Your task to perform on an android device: Search for the best rated phone case for the iPhone 8. Image 0: 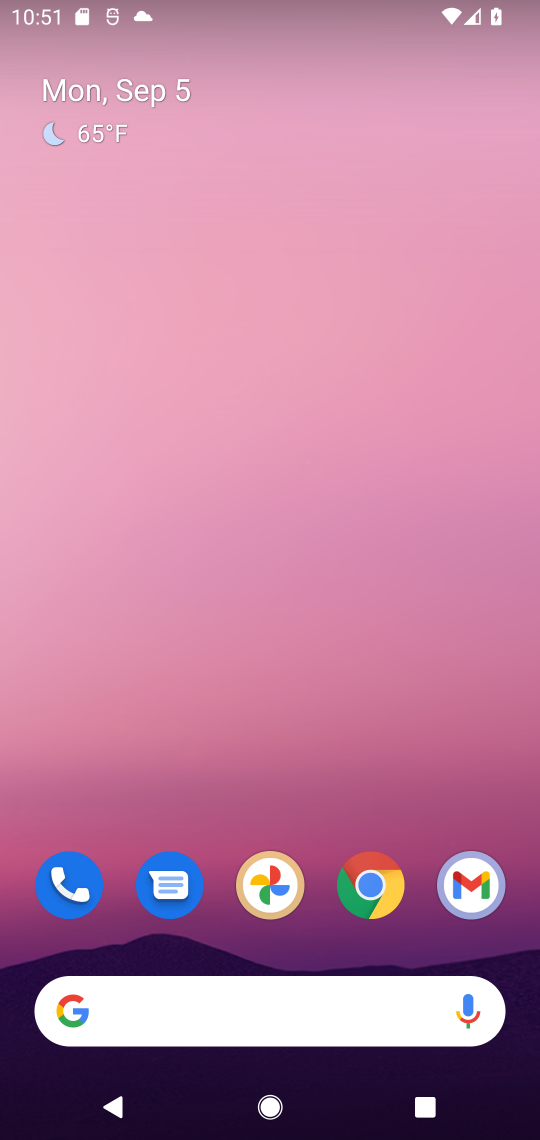
Step 0: drag from (353, 920) to (360, 224)
Your task to perform on an android device: Search for the best rated phone case for the iPhone 8. Image 1: 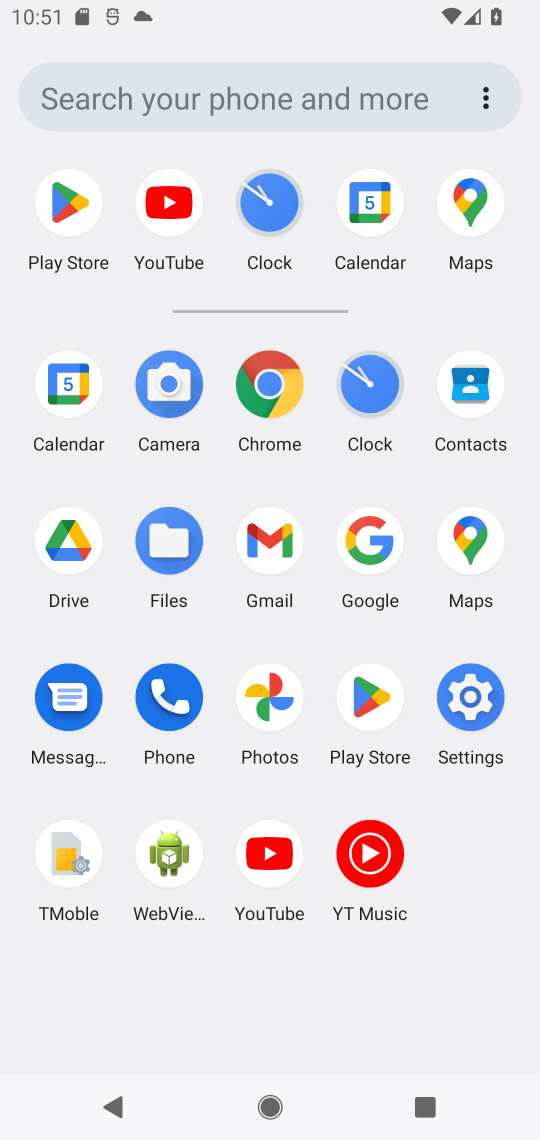
Step 1: click (370, 533)
Your task to perform on an android device: Search for the best rated phone case for the iPhone 8. Image 2: 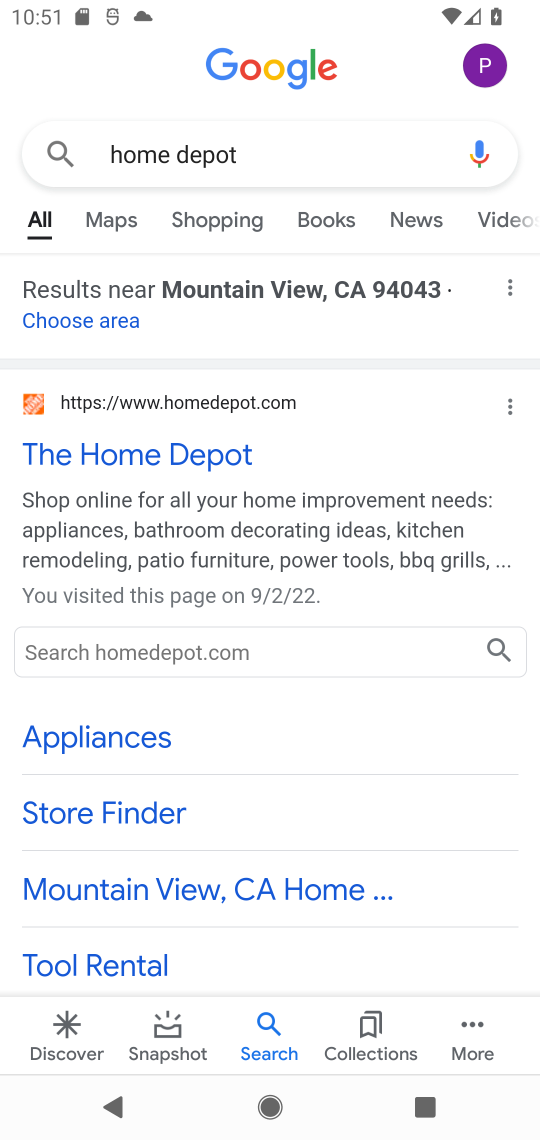
Step 2: click (315, 160)
Your task to perform on an android device: Search for the best rated phone case for the iPhone 8. Image 3: 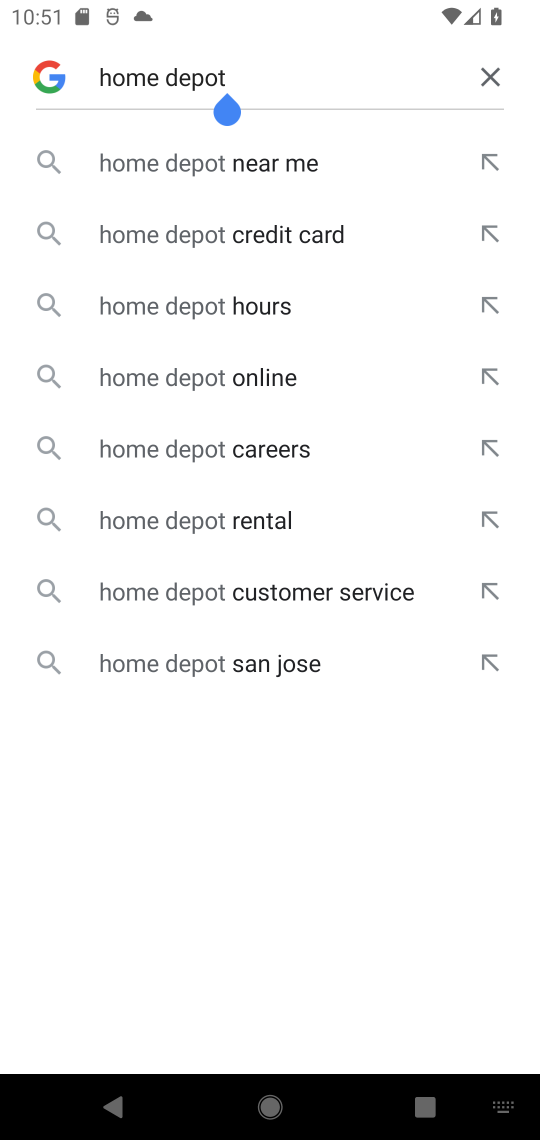
Step 3: click (490, 70)
Your task to perform on an android device: Search for the best rated phone case for the iPhone 8. Image 4: 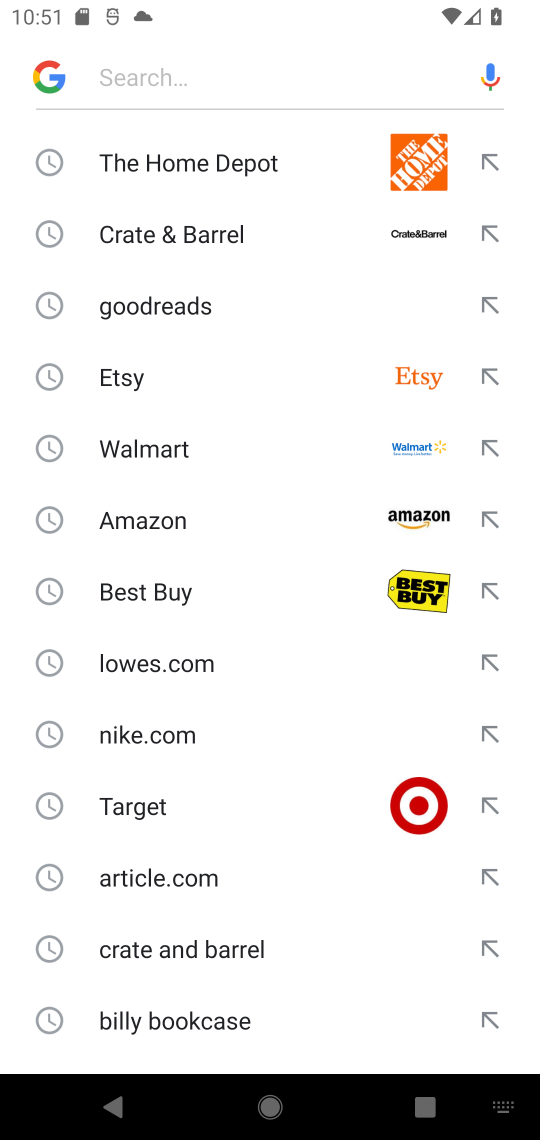
Step 4: type "phone case for the iPhone 8"
Your task to perform on an android device: Search for the best rated phone case for the iPhone 8. Image 5: 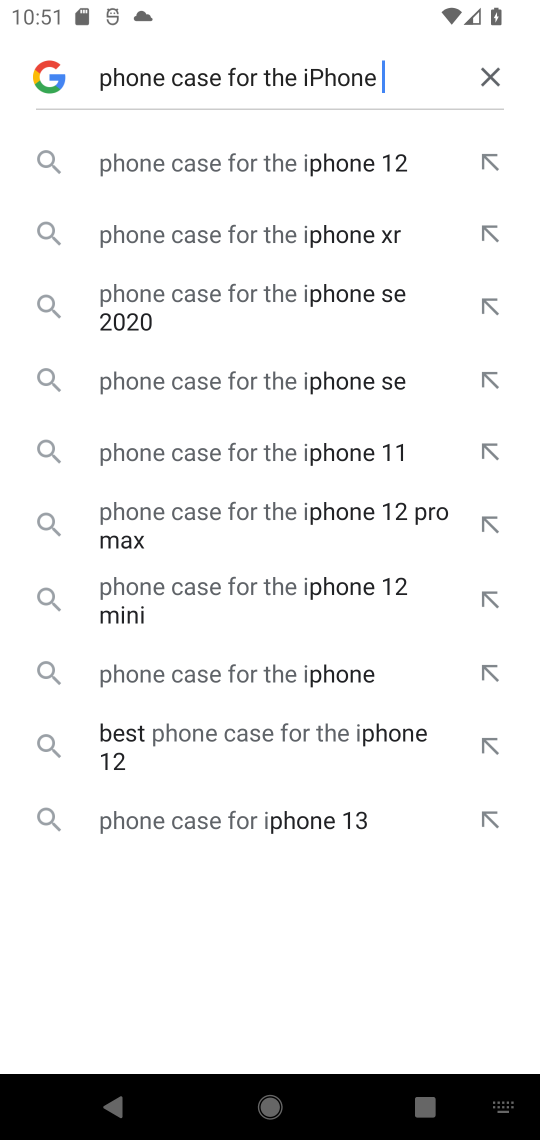
Step 5: type ""
Your task to perform on an android device: Search for the best rated phone case for the iPhone 8. Image 6: 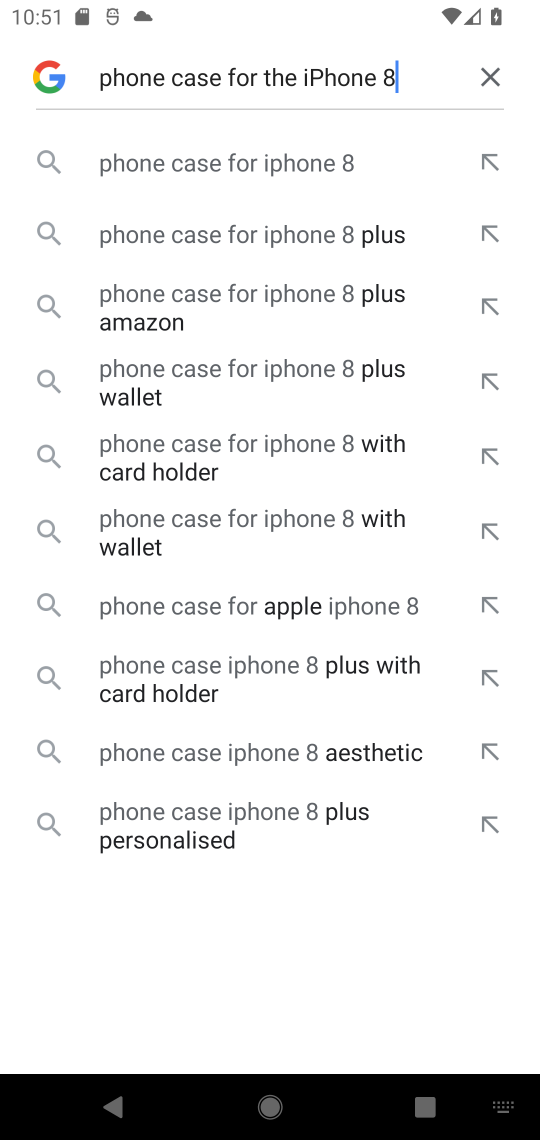
Step 6: click (293, 163)
Your task to perform on an android device: Search for the best rated phone case for the iPhone 8. Image 7: 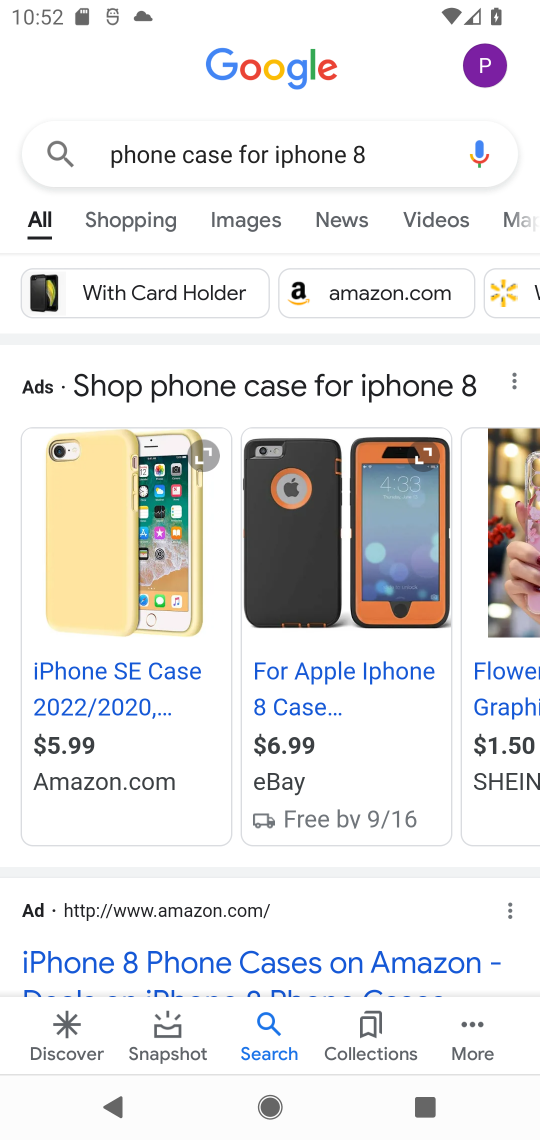
Step 7: task complete